Your task to perform on an android device: Open Google Image 0: 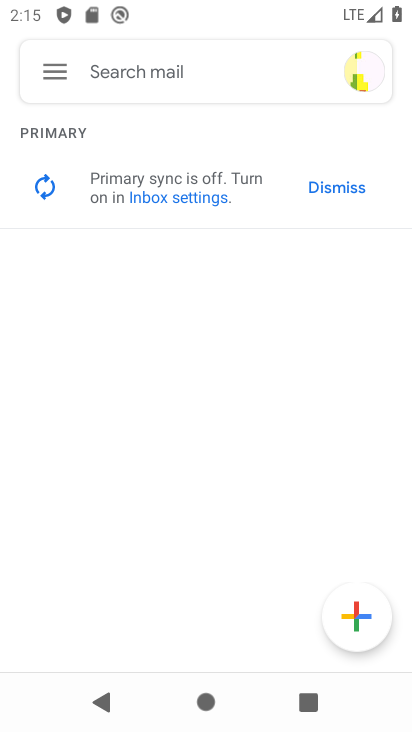
Step 0: press home button
Your task to perform on an android device: Open Google Image 1: 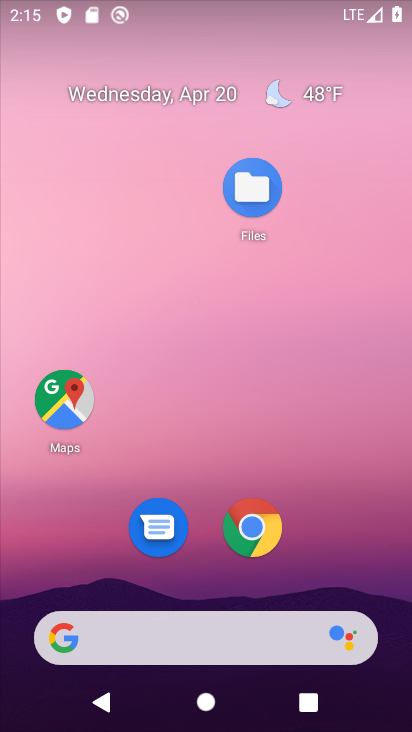
Step 1: click (162, 662)
Your task to perform on an android device: Open Google Image 2: 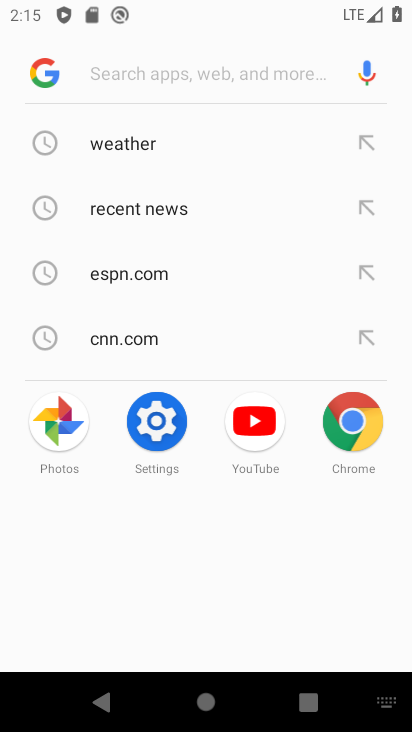
Step 2: task complete